Your task to perform on an android device: manage bookmarks in the chrome app Image 0: 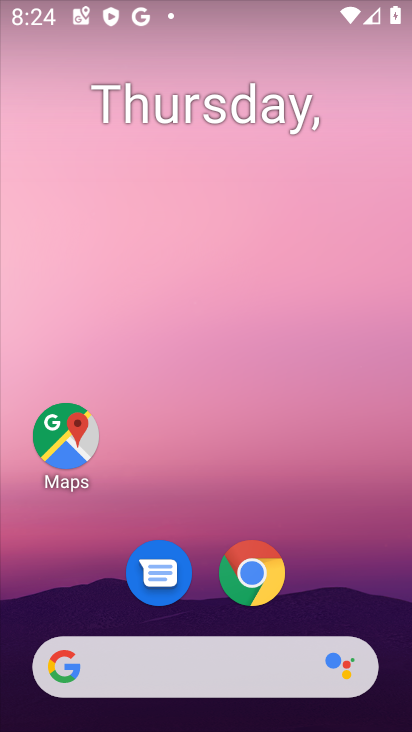
Step 0: press home button
Your task to perform on an android device: manage bookmarks in the chrome app Image 1: 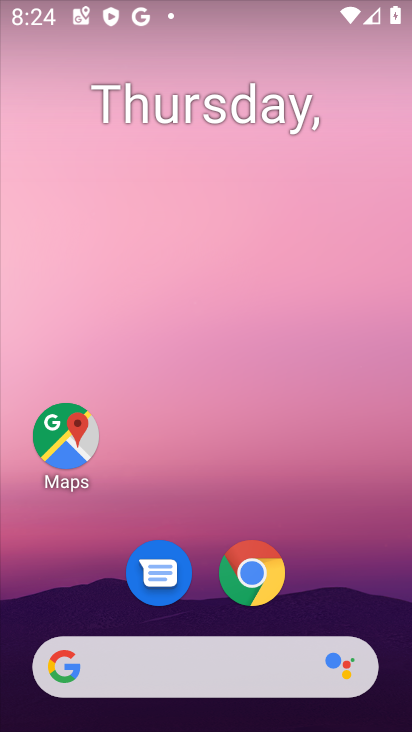
Step 1: drag from (371, 602) to (361, 118)
Your task to perform on an android device: manage bookmarks in the chrome app Image 2: 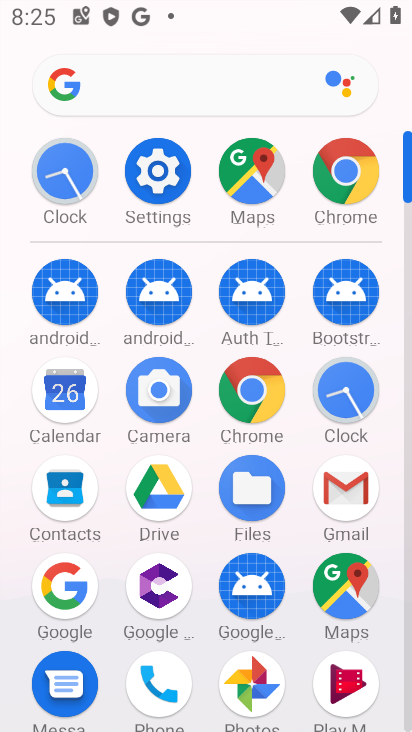
Step 2: click (276, 397)
Your task to perform on an android device: manage bookmarks in the chrome app Image 3: 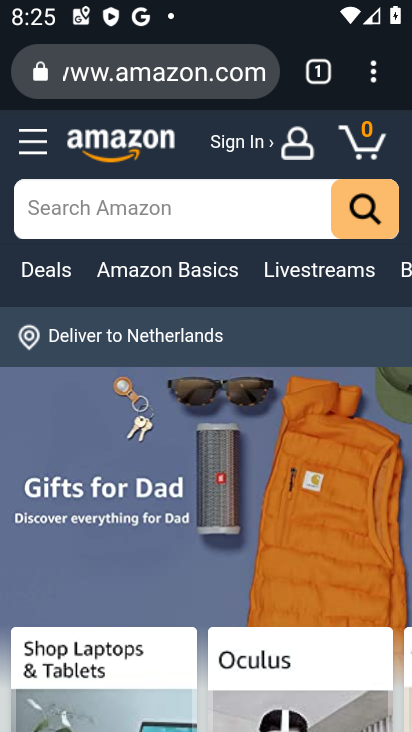
Step 3: drag from (374, 60) to (152, 265)
Your task to perform on an android device: manage bookmarks in the chrome app Image 4: 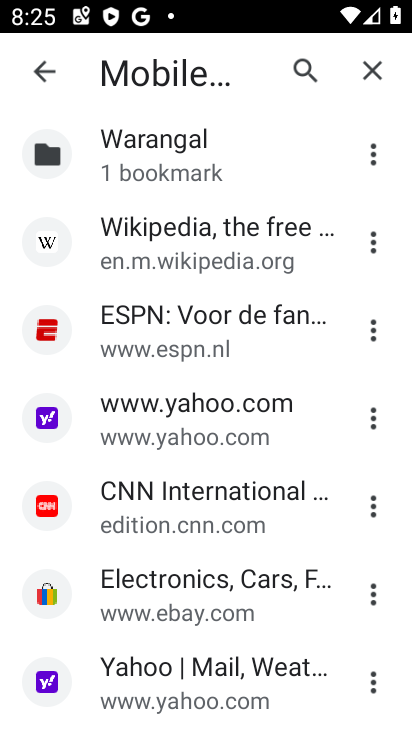
Step 4: drag from (135, 619) to (157, 279)
Your task to perform on an android device: manage bookmarks in the chrome app Image 5: 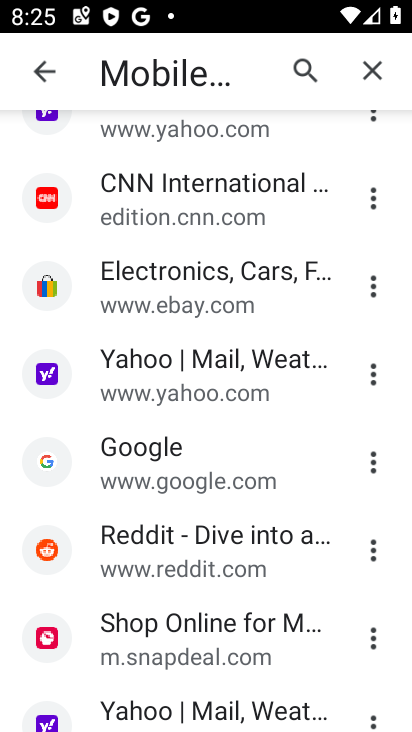
Step 5: click (376, 281)
Your task to perform on an android device: manage bookmarks in the chrome app Image 6: 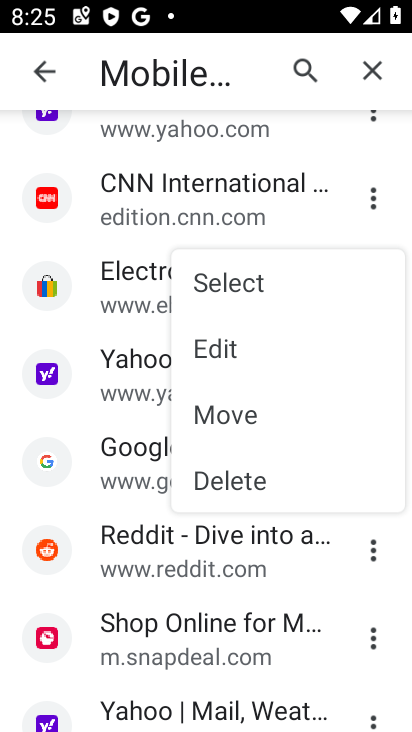
Step 6: click (218, 476)
Your task to perform on an android device: manage bookmarks in the chrome app Image 7: 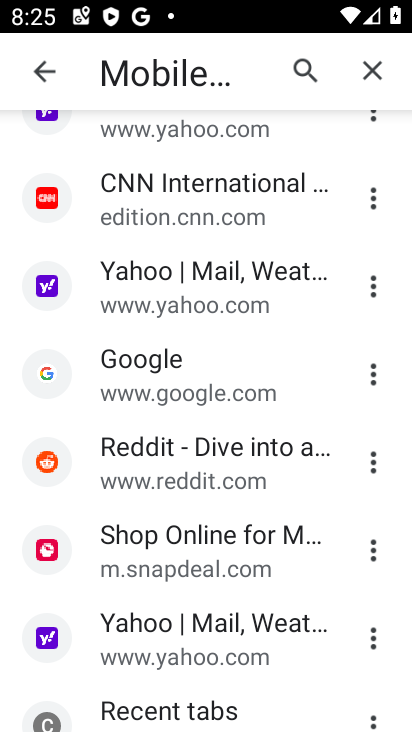
Step 7: task complete